Your task to perform on an android device: Go to Maps Image 0: 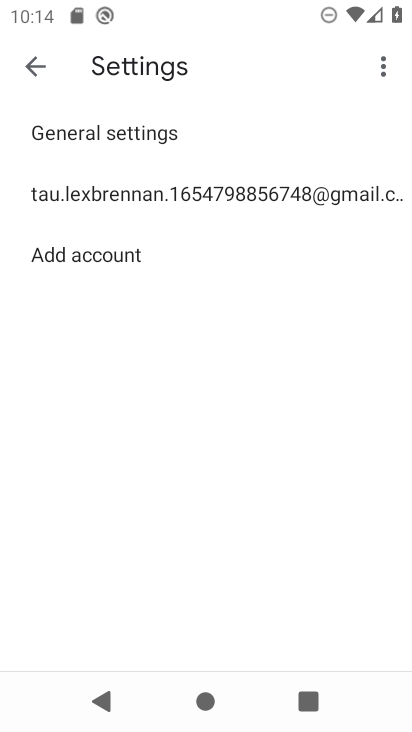
Step 0: press home button
Your task to perform on an android device: Go to Maps Image 1: 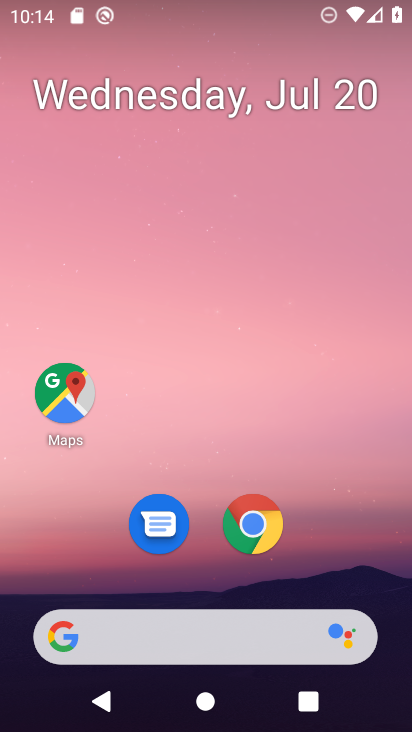
Step 1: click (67, 403)
Your task to perform on an android device: Go to Maps Image 2: 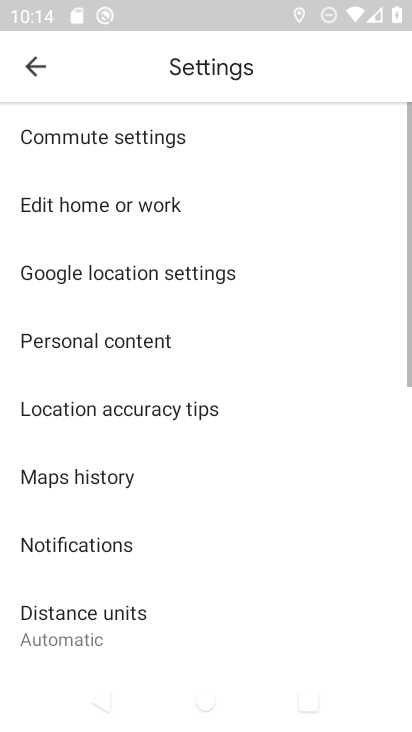
Step 2: click (43, 62)
Your task to perform on an android device: Go to Maps Image 3: 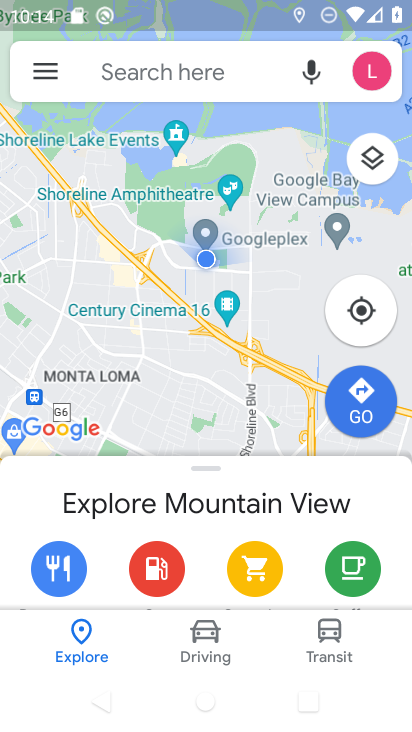
Step 3: task complete